Your task to perform on an android device: toggle wifi Image 0: 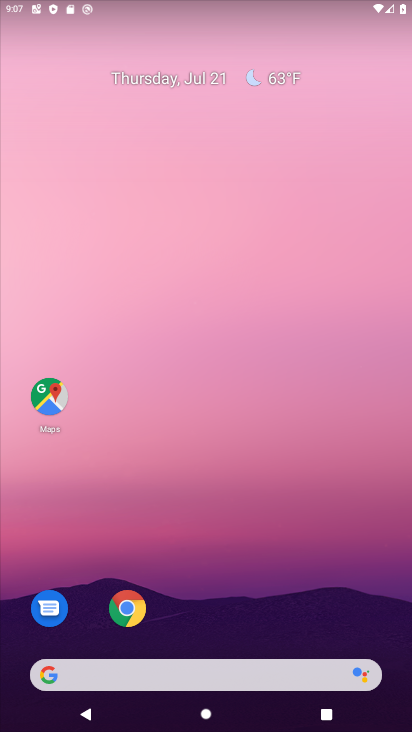
Step 0: drag from (225, 633) to (305, 194)
Your task to perform on an android device: toggle wifi Image 1: 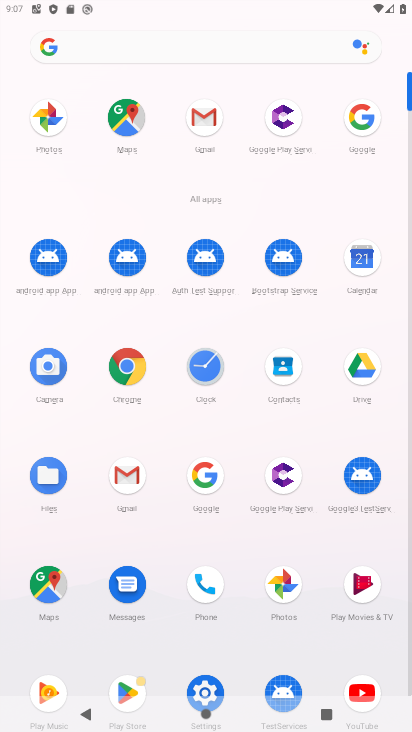
Step 1: click (201, 682)
Your task to perform on an android device: toggle wifi Image 2: 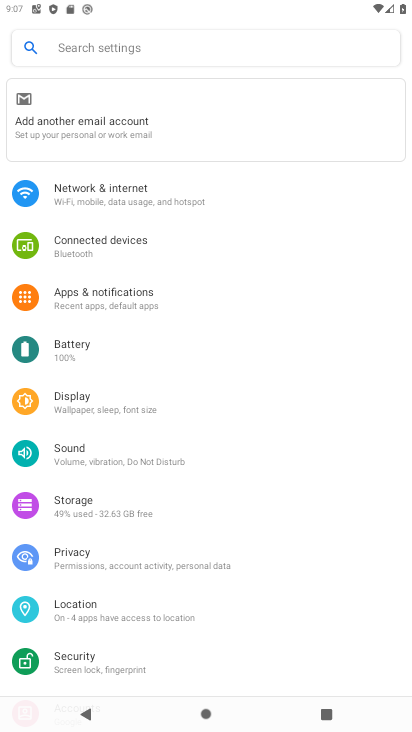
Step 2: click (191, 195)
Your task to perform on an android device: toggle wifi Image 3: 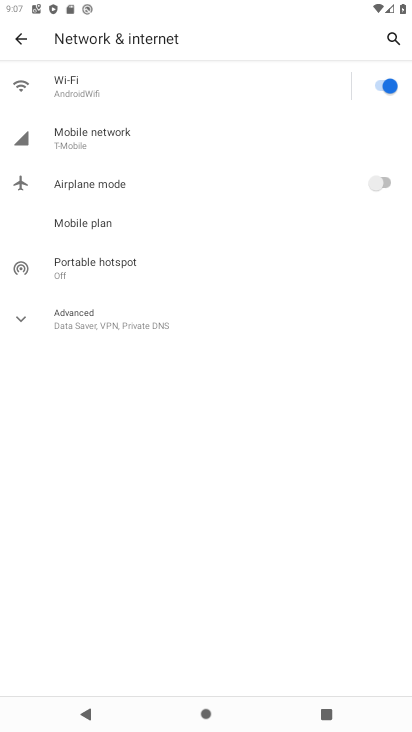
Step 3: click (376, 85)
Your task to perform on an android device: toggle wifi Image 4: 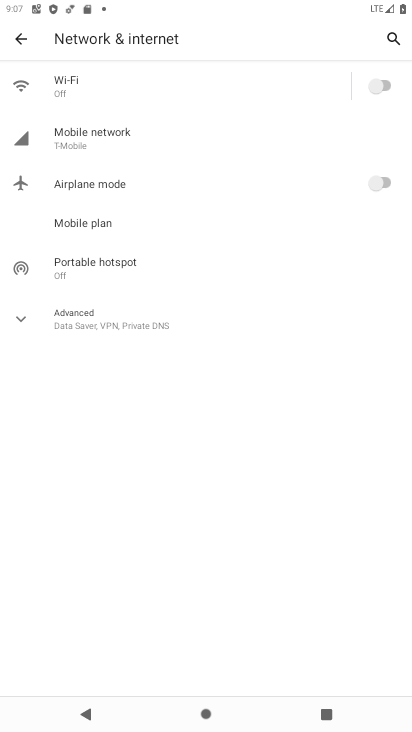
Step 4: task complete